Your task to perform on an android device: turn on improve location accuracy Image 0: 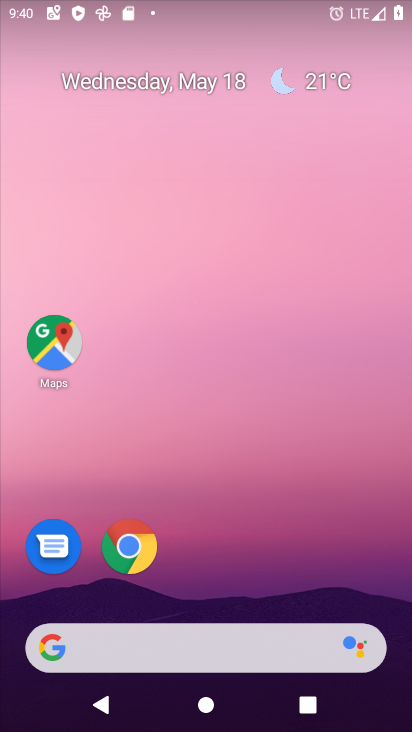
Step 0: drag from (403, 635) to (340, 141)
Your task to perform on an android device: turn on improve location accuracy Image 1: 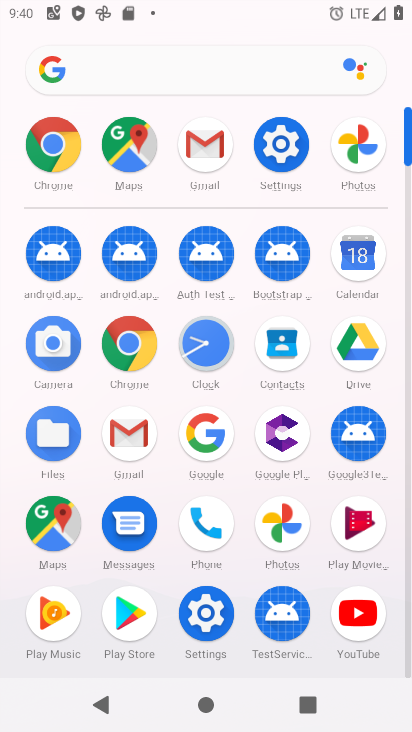
Step 1: click (289, 160)
Your task to perform on an android device: turn on improve location accuracy Image 2: 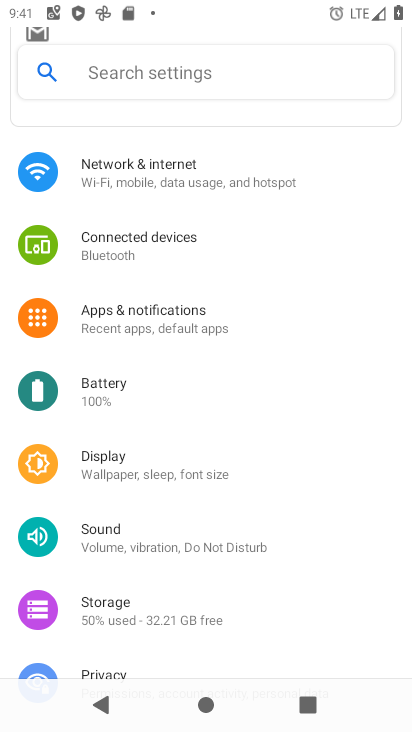
Step 2: drag from (156, 560) to (208, 155)
Your task to perform on an android device: turn on improve location accuracy Image 3: 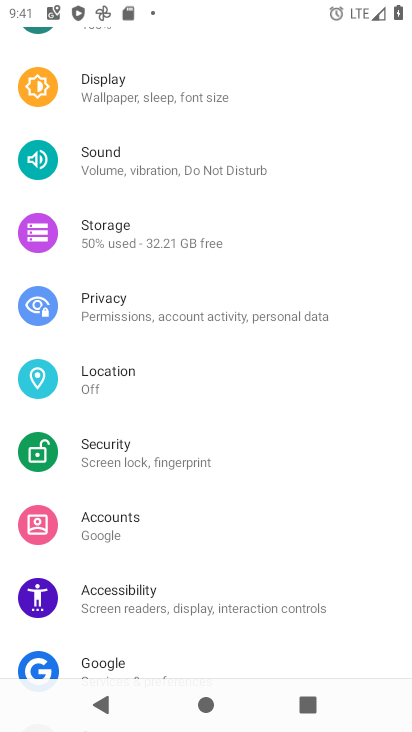
Step 3: click (141, 374)
Your task to perform on an android device: turn on improve location accuracy Image 4: 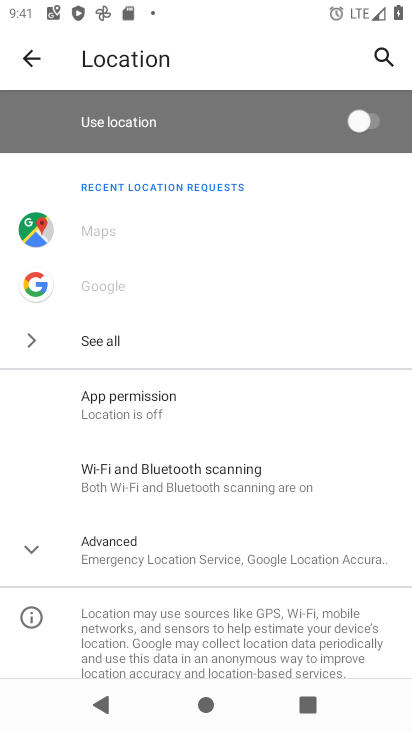
Step 4: click (71, 558)
Your task to perform on an android device: turn on improve location accuracy Image 5: 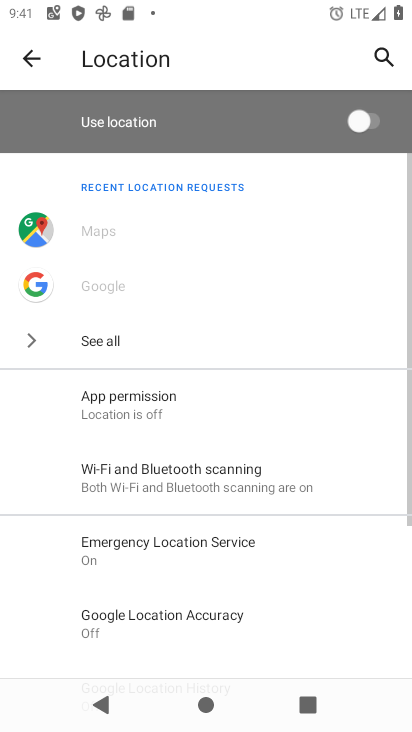
Step 5: drag from (146, 629) to (184, 354)
Your task to perform on an android device: turn on improve location accuracy Image 6: 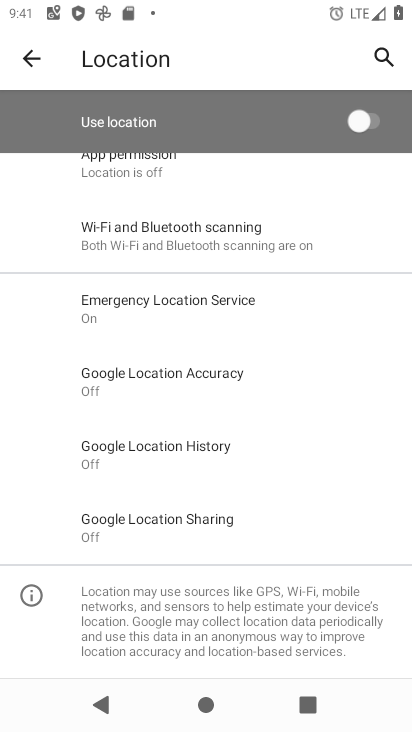
Step 6: click (183, 376)
Your task to perform on an android device: turn on improve location accuracy Image 7: 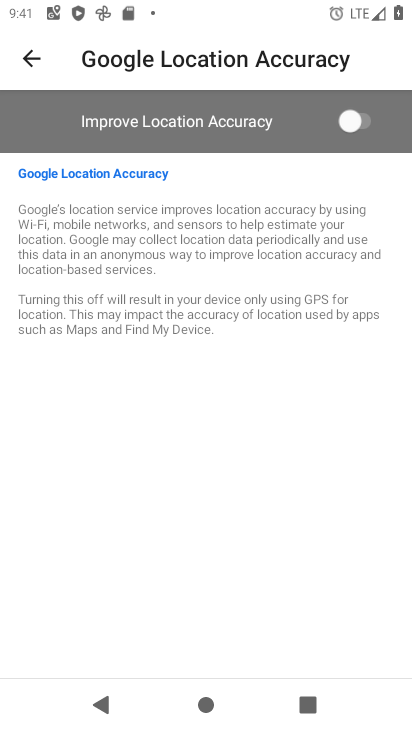
Step 7: click (333, 139)
Your task to perform on an android device: turn on improve location accuracy Image 8: 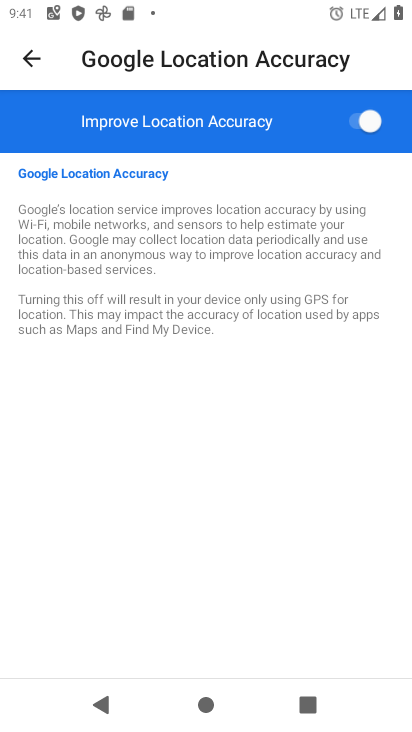
Step 8: task complete